Your task to perform on an android device: Open Google Maps Image 0: 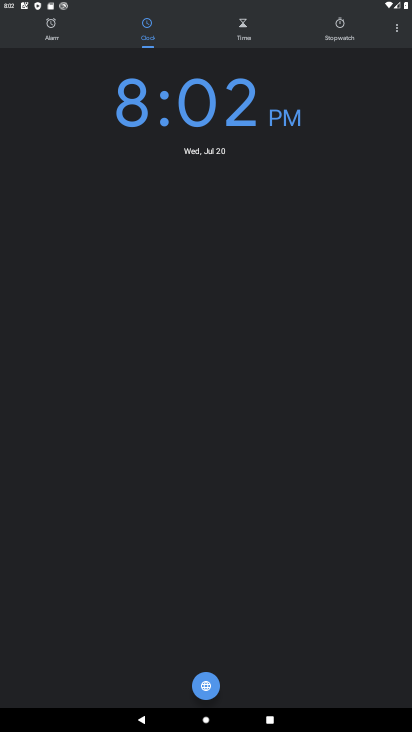
Step 0: press home button
Your task to perform on an android device: Open Google Maps Image 1: 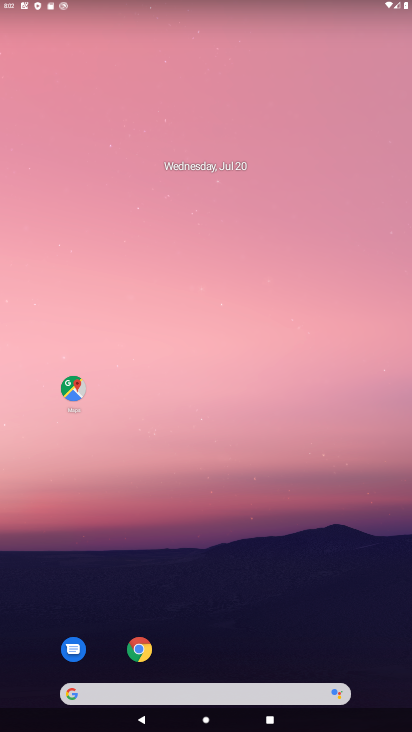
Step 1: click (82, 377)
Your task to perform on an android device: Open Google Maps Image 2: 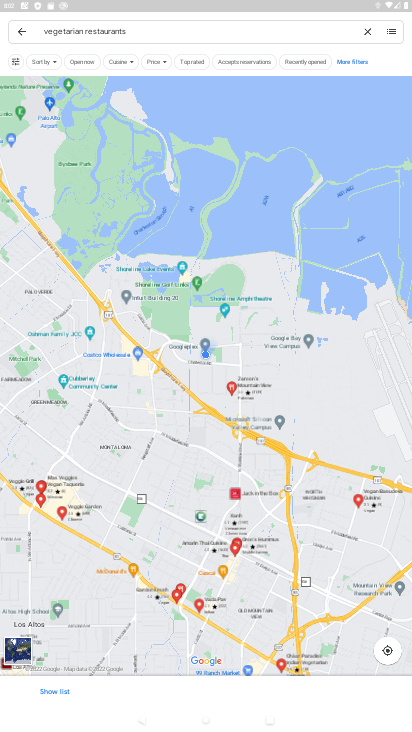
Step 2: task complete